Your task to perform on an android device: Open CNN.com Image 0: 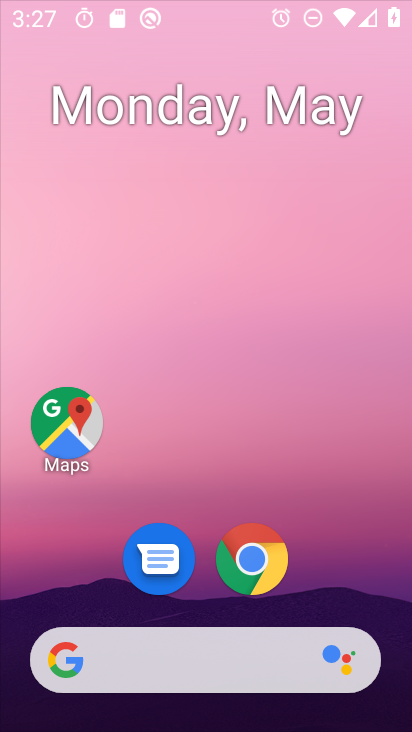
Step 0: click (344, 407)
Your task to perform on an android device: Open CNN.com Image 1: 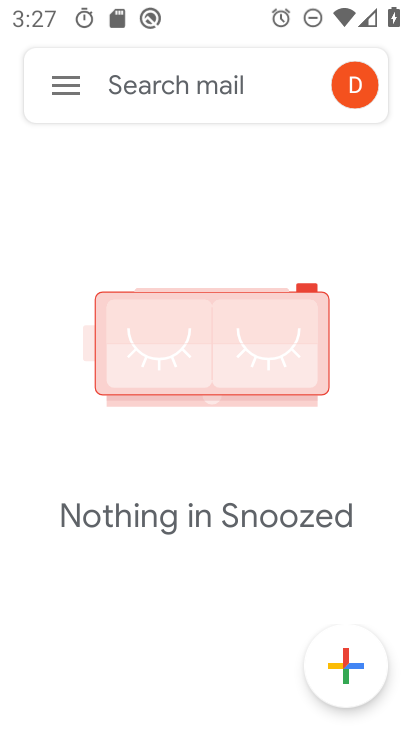
Step 1: drag from (263, 557) to (254, 242)
Your task to perform on an android device: Open CNN.com Image 2: 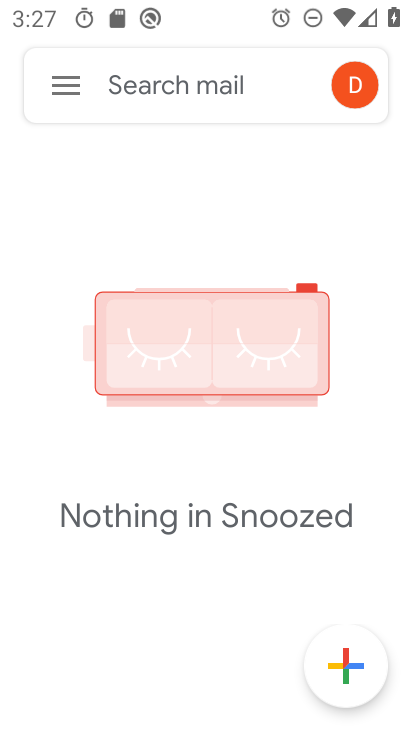
Step 2: drag from (185, 254) to (395, 527)
Your task to perform on an android device: Open CNN.com Image 3: 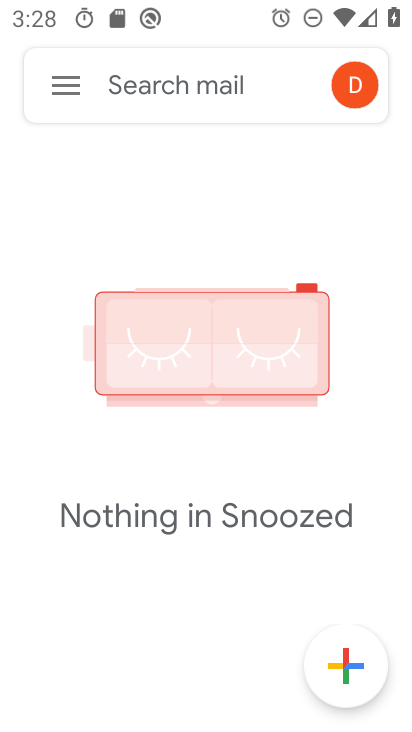
Step 3: drag from (187, 589) to (275, 293)
Your task to perform on an android device: Open CNN.com Image 4: 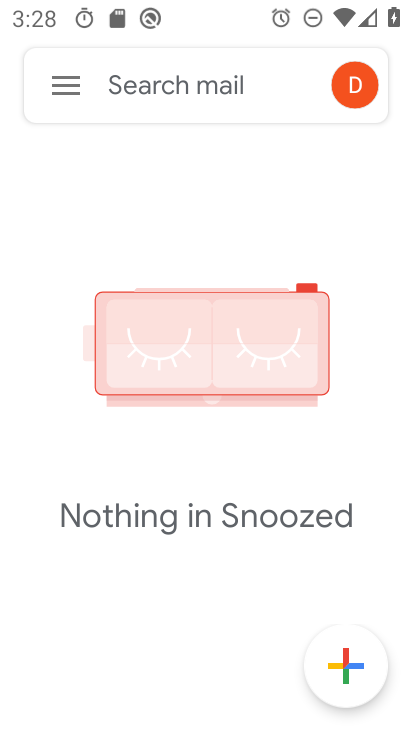
Step 4: drag from (317, 476) to (19, 244)
Your task to perform on an android device: Open CNN.com Image 5: 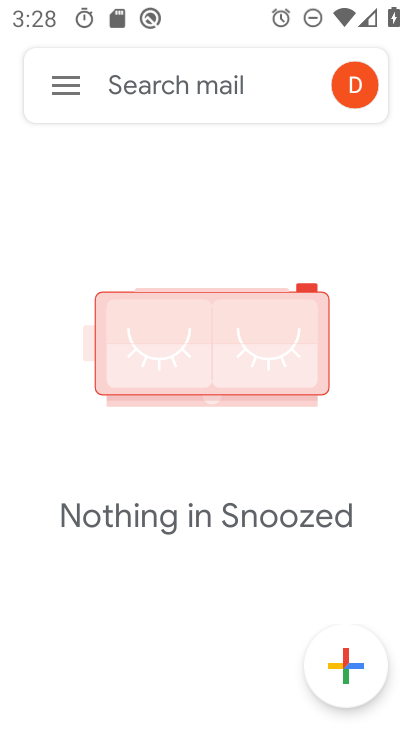
Step 5: press home button
Your task to perform on an android device: Open CNN.com Image 6: 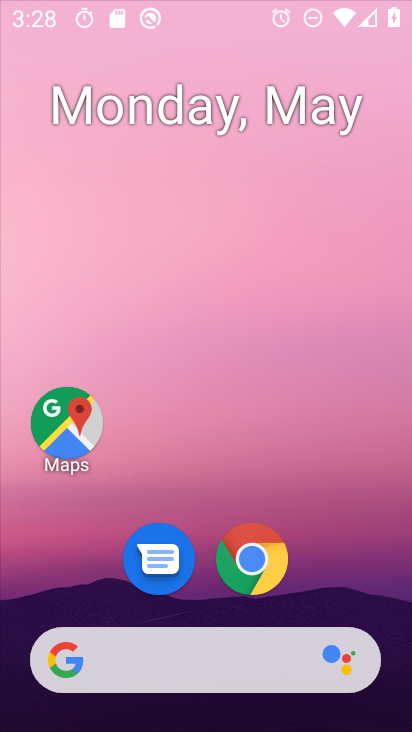
Step 6: drag from (183, 631) to (299, 88)
Your task to perform on an android device: Open CNN.com Image 7: 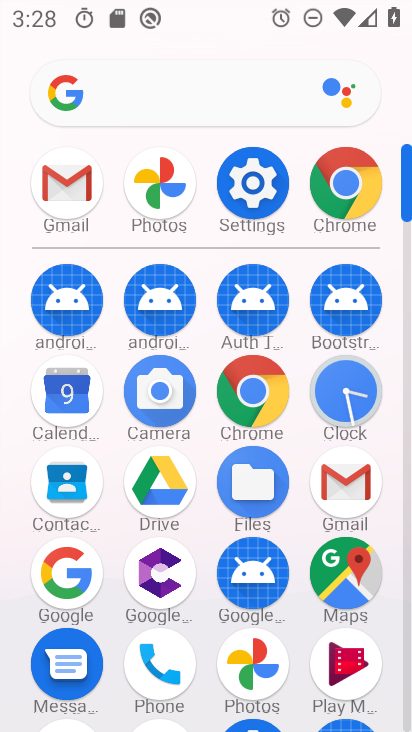
Step 7: click (196, 108)
Your task to perform on an android device: Open CNN.com Image 8: 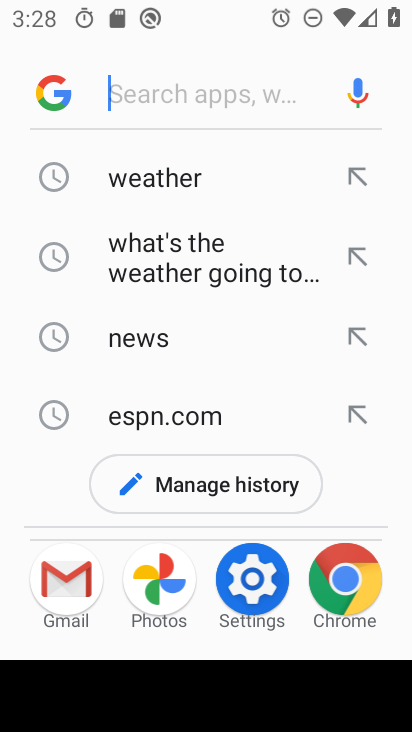
Step 8: type "cnn.com"
Your task to perform on an android device: Open CNN.com Image 9: 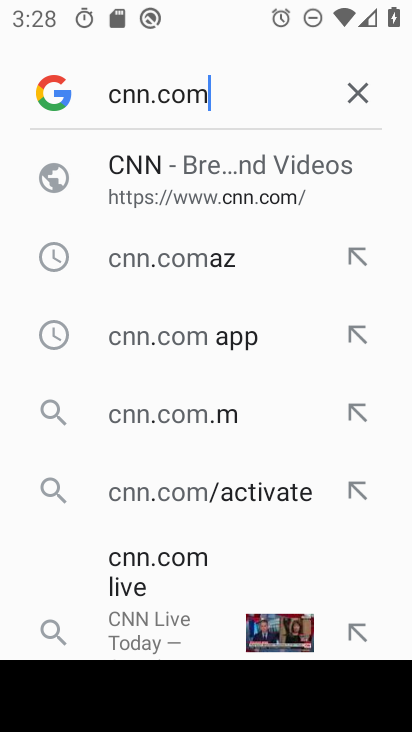
Step 9: click (83, 405)
Your task to perform on an android device: Open CNN.com Image 10: 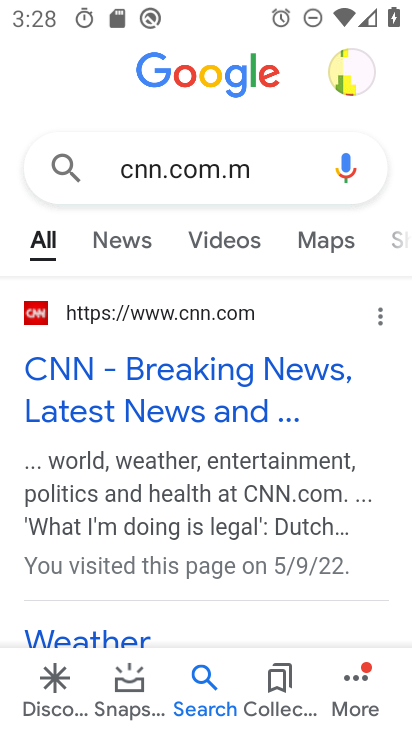
Step 10: task complete